Your task to perform on an android device: What's the weather like in New York? Image 0: 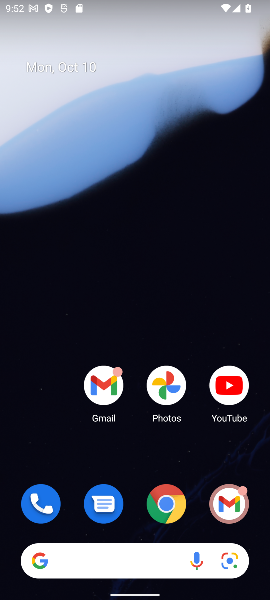
Step 0: click (166, 505)
Your task to perform on an android device: What's the weather like in New York? Image 1: 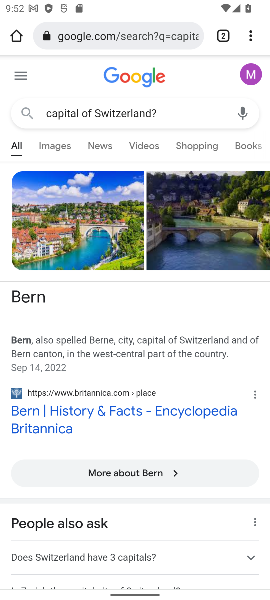
Step 1: click (117, 23)
Your task to perform on an android device: What's the weather like in New York? Image 2: 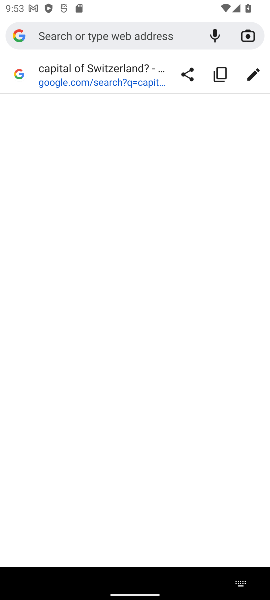
Step 2: type "weather like in New York?"
Your task to perform on an android device: What's the weather like in New York? Image 3: 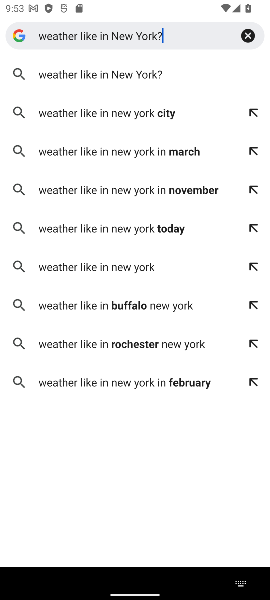
Step 3: click (75, 72)
Your task to perform on an android device: What's the weather like in New York? Image 4: 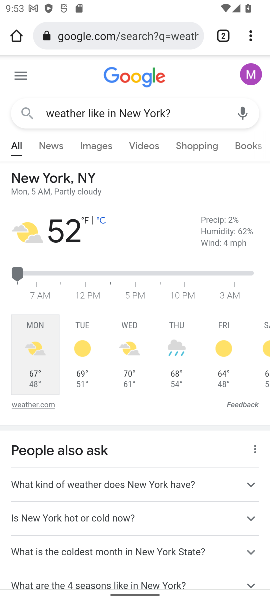
Step 4: task complete